Your task to perform on an android device: open app "Etsy: Buy & Sell Unique Items" (install if not already installed) and go to login screen Image 0: 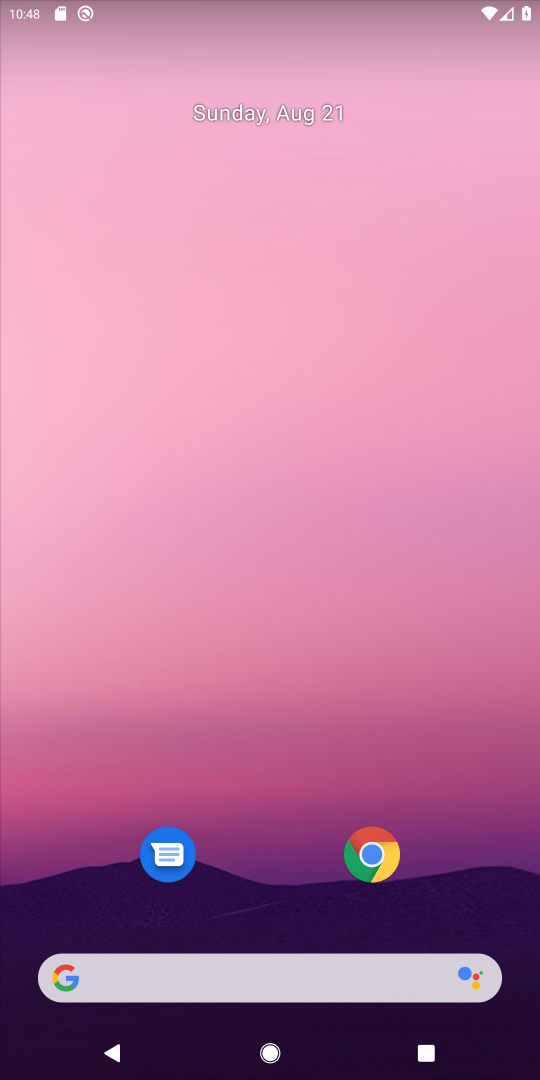
Step 0: drag from (248, 937) to (288, 81)
Your task to perform on an android device: open app "Etsy: Buy & Sell Unique Items" (install if not already installed) and go to login screen Image 1: 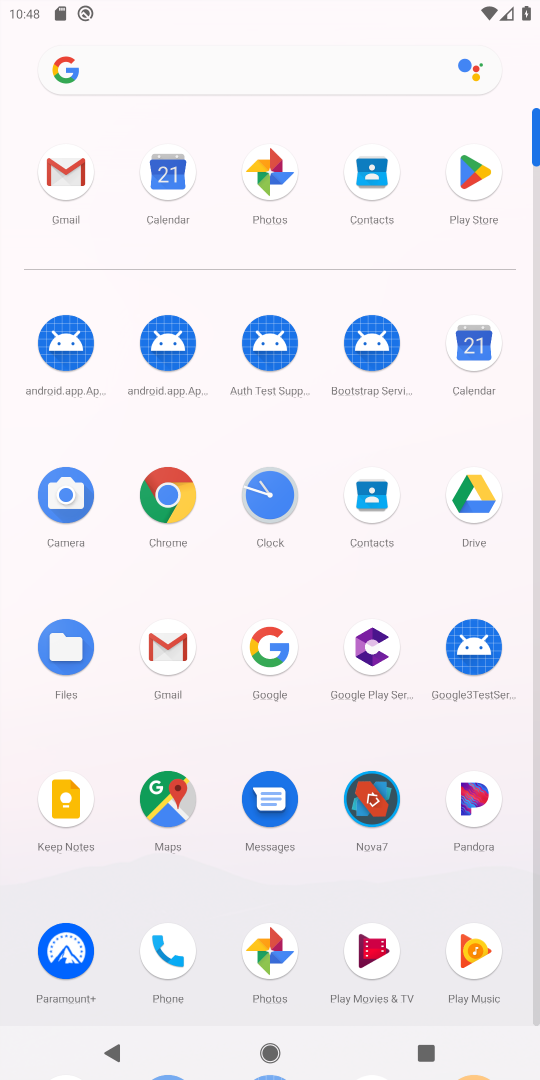
Step 1: click (490, 174)
Your task to perform on an android device: open app "Etsy: Buy & Sell Unique Items" (install if not already installed) and go to login screen Image 2: 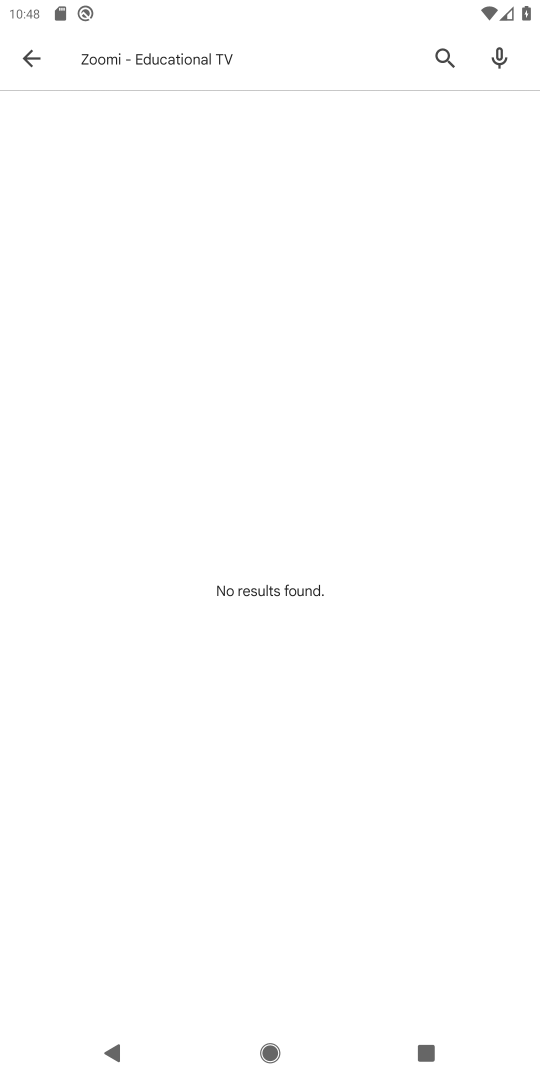
Step 2: click (327, 73)
Your task to perform on an android device: open app "Etsy: Buy & Sell Unique Items" (install if not already installed) and go to login screen Image 3: 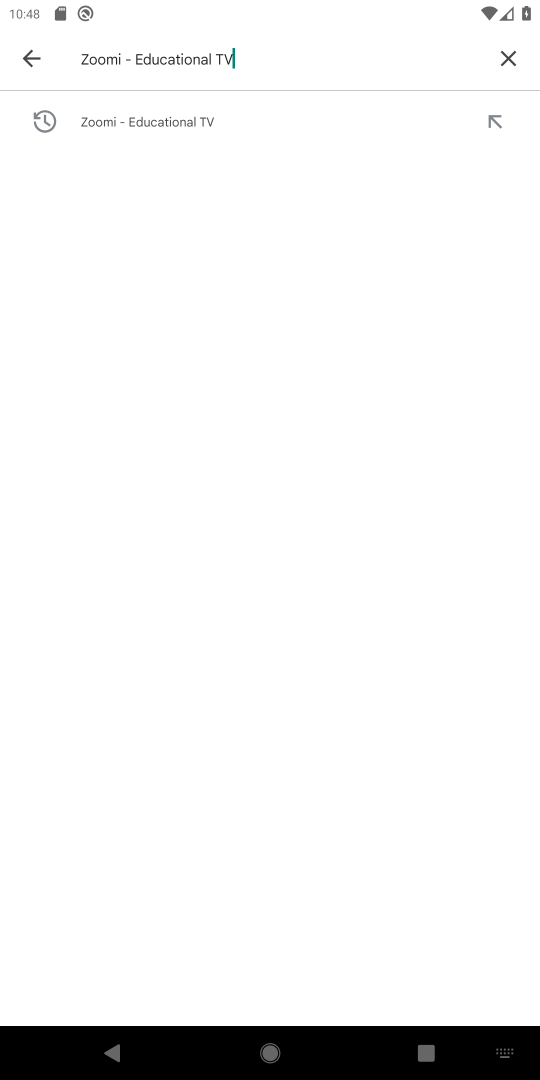
Step 3: click (507, 60)
Your task to perform on an android device: open app "Etsy: Buy & Sell Unique Items" (install if not already installed) and go to login screen Image 4: 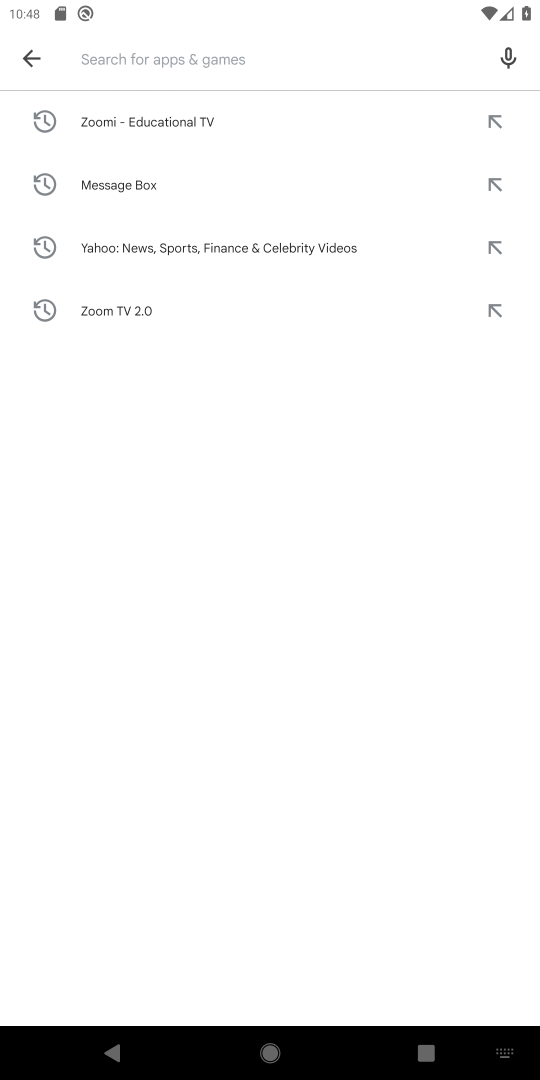
Step 4: type "esty"
Your task to perform on an android device: open app "Etsy: Buy & Sell Unique Items" (install if not already installed) and go to login screen Image 5: 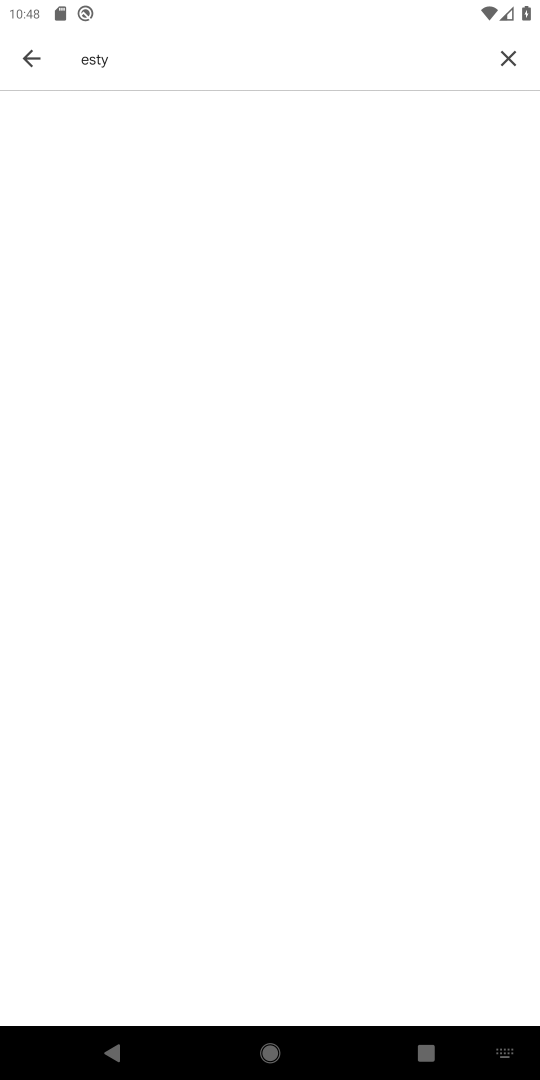
Step 5: task complete